Your task to perform on an android device: What's the weather going to be tomorrow? Image 0: 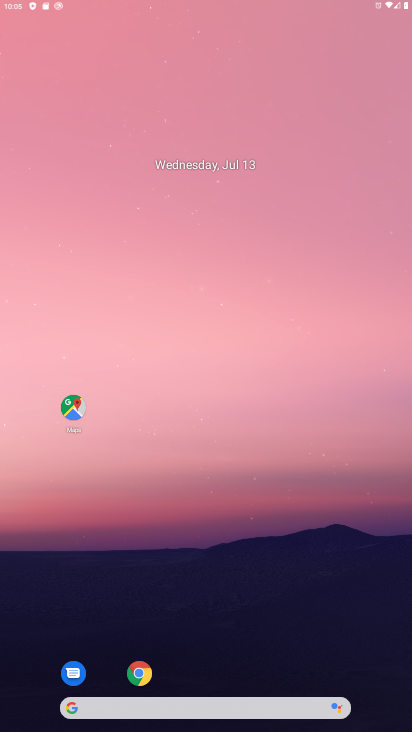
Step 0: drag from (196, 694) to (196, 323)
Your task to perform on an android device: What's the weather going to be tomorrow? Image 1: 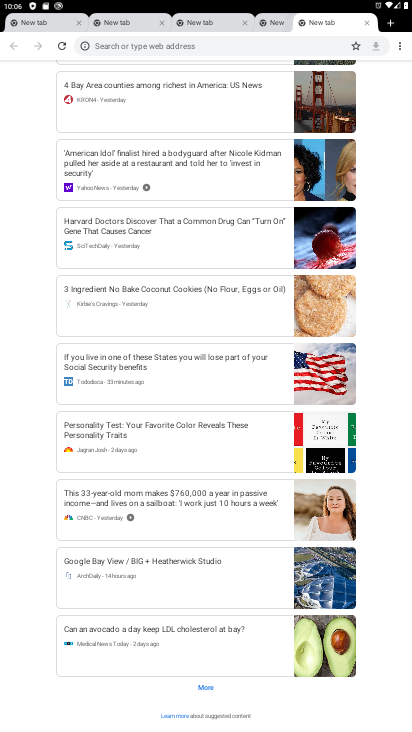
Step 1: press home button
Your task to perform on an android device: What's the weather going to be tomorrow? Image 2: 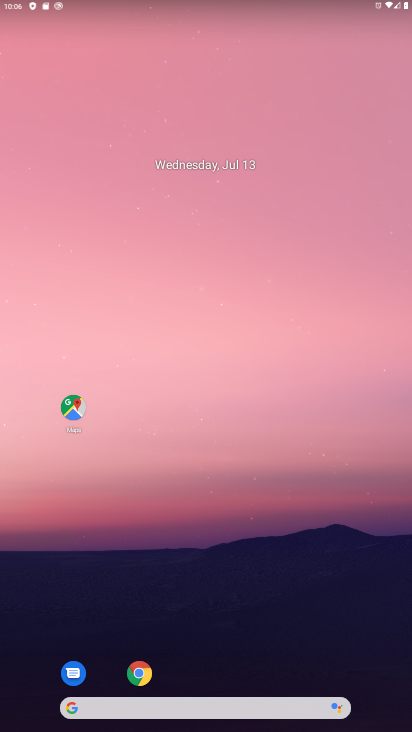
Step 2: drag from (160, 667) to (187, 324)
Your task to perform on an android device: What's the weather going to be tomorrow? Image 3: 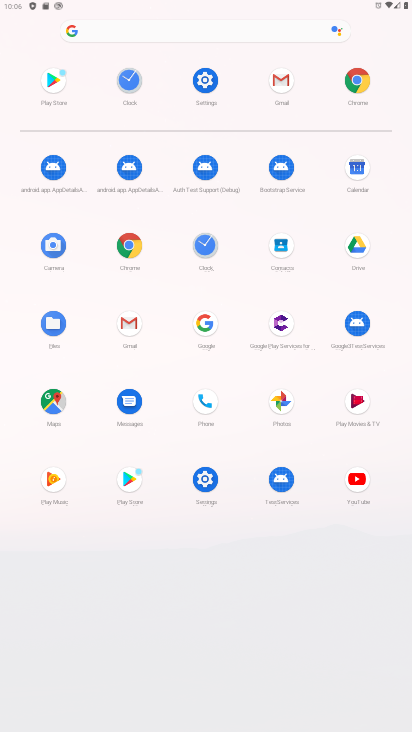
Step 3: click (206, 324)
Your task to perform on an android device: What's the weather going to be tomorrow? Image 4: 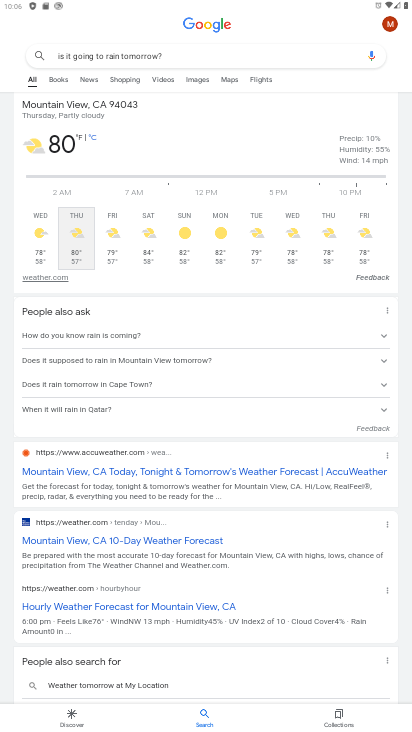
Step 4: click (311, 48)
Your task to perform on an android device: What's the weather going to be tomorrow? Image 5: 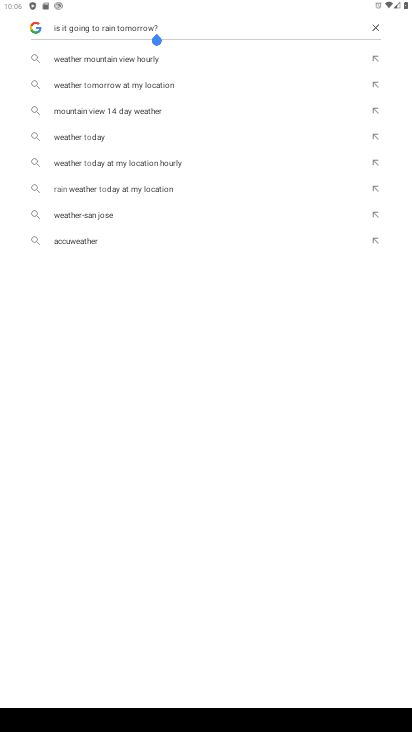
Step 5: click (372, 31)
Your task to perform on an android device: What's the weather going to be tomorrow? Image 6: 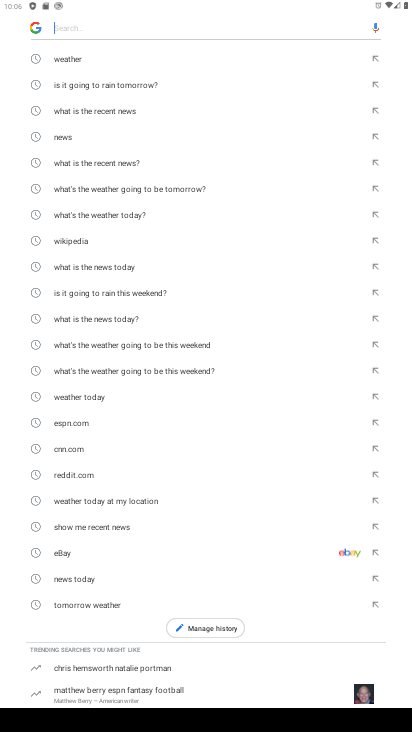
Step 6: click (71, 57)
Your task to perform on an android device: What's the weather going to be tomorrow? Image 7: 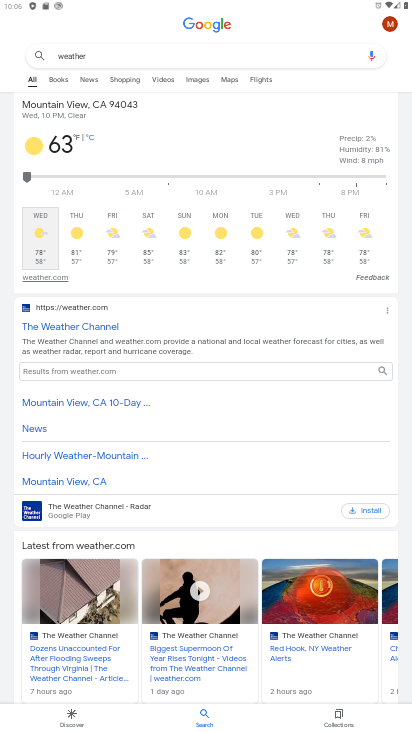
Step 7: task complete